Your task to perform on an android device: Go to sound settings Image 0: 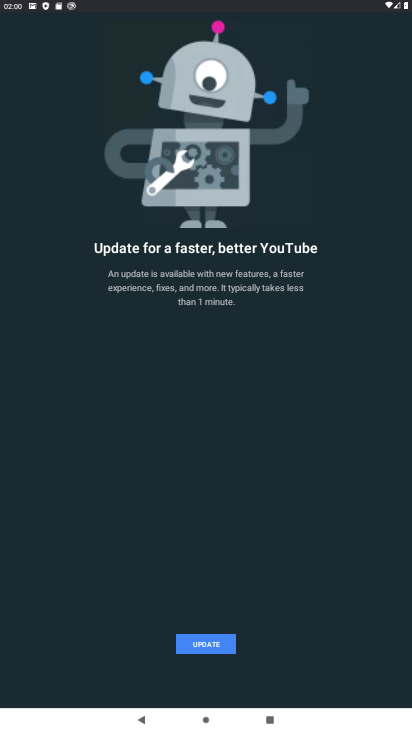
Step 0: press home button
Your task to perform on an android device: Go to sound settings Image 1: 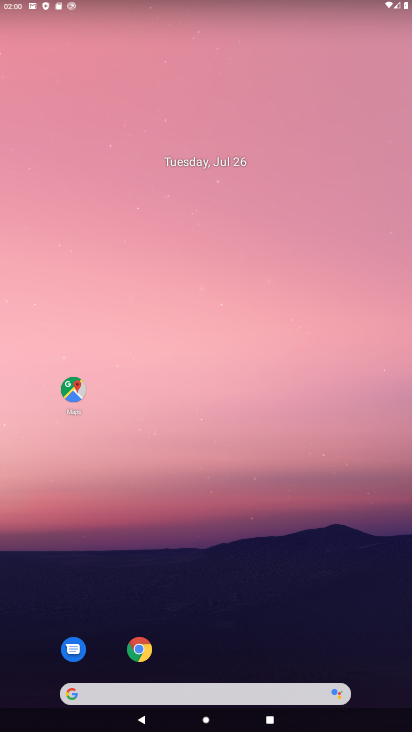
Step 1: drag from (218, 686) to (249, 90)
Your task to perform on an android device: Go to sound settings Image 2: 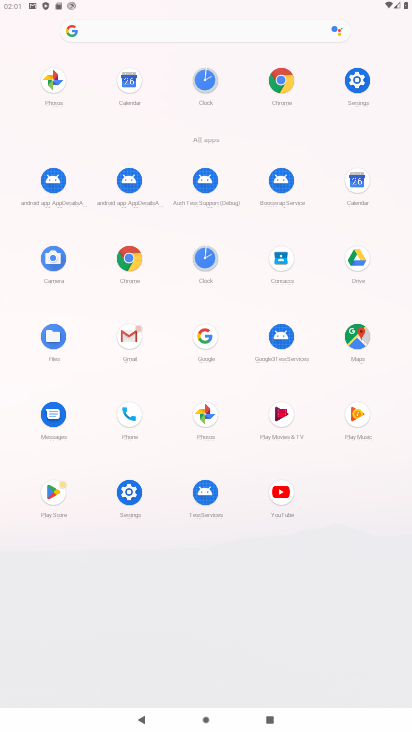
Step 2: click (362, 75)
Your task to perform on an android device: Go to sound settings Image 3: 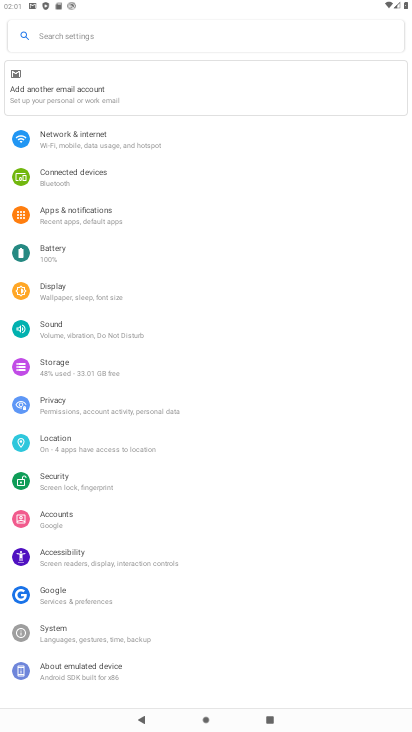
Step 3: click (71, 338)
Your task to perform on an android device: Go to sound settings Image 4: 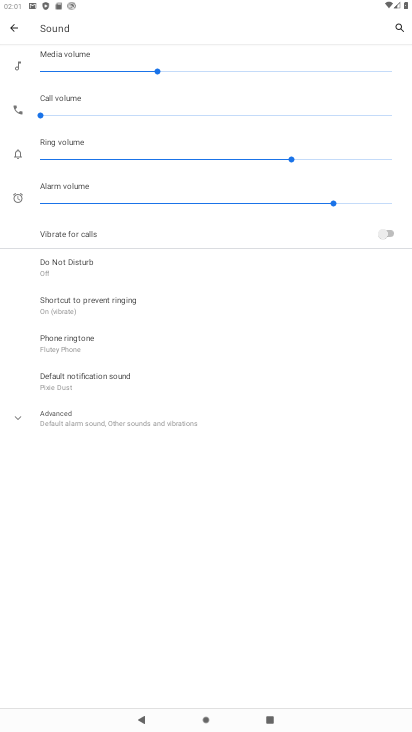
Step 4: task complete